Your task to perform on an android device: Turn on the flashlight Image 0: 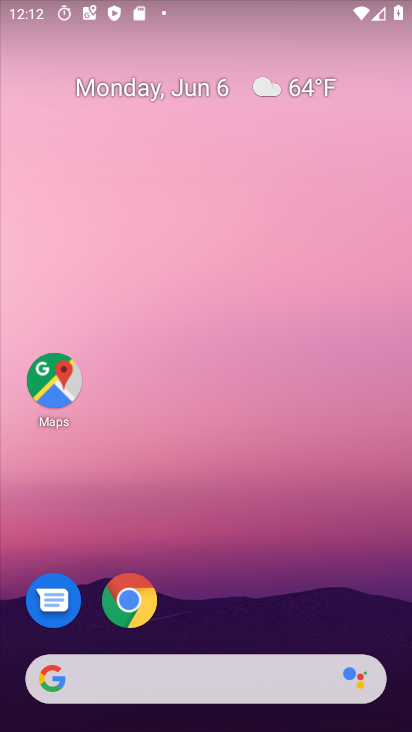
Step 0: drag from (233, 713) to (169, 55)
Your task to perform on an android device: Turn on the flashlight Image 1: 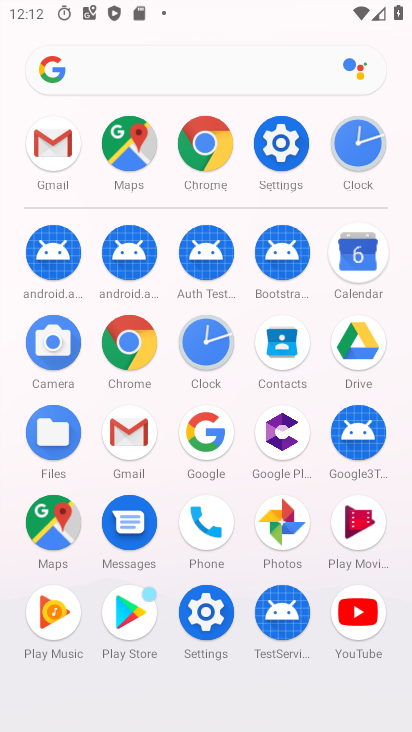
Step 1: task complete